Your task to perform on an android device: toggle improve location accuracy Image 0: 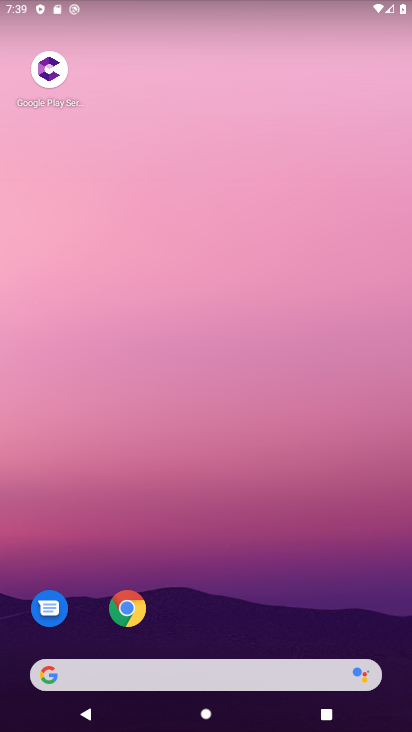
Step 0: drag from (33, 695) to (226, 55)
Your task to perform on an android device: toggle improve location accuracy Image 1: 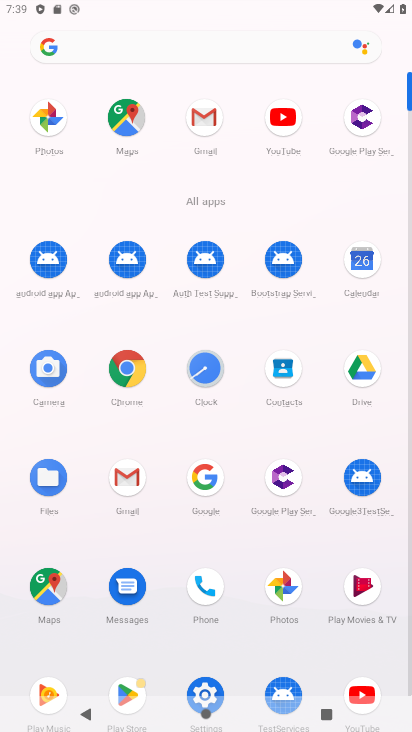
Step 1: click (203, 695)
Your task to perform on an android device: toggle improve location accuracy Image 2: 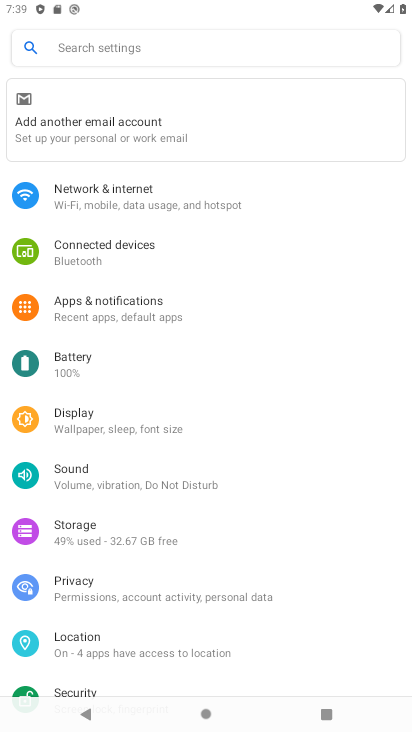
Step 2: click (76, 637)
Your task to perform on an android device: toggle improve location accuracy Image 3: 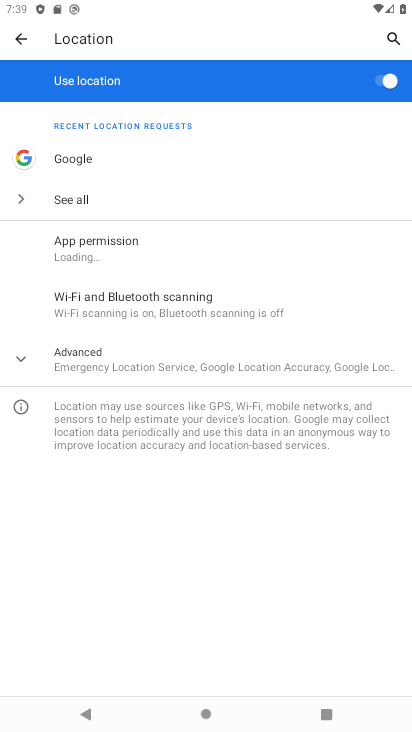
Step 3: click (82, 352)
Your task to perform on an android device: toggle improve location accuracy Image 4: 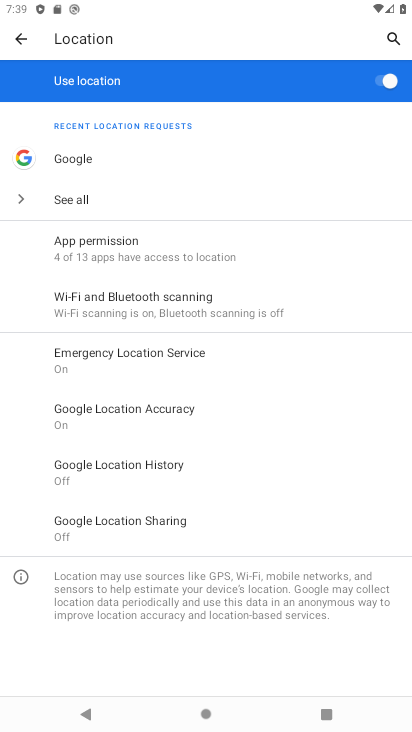
Step 4: task complete